Your task to perform on an android device: show emergency info Image 0: 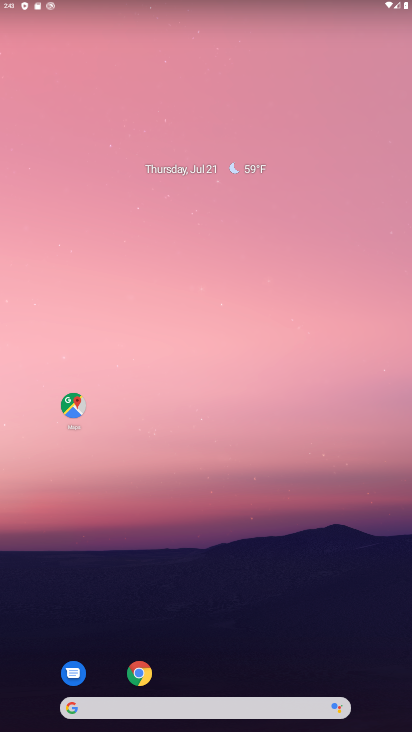
Step 0: drag from (383, 692) to (348, 165)
Your task to perform on an android device: show emergency info Image 1: 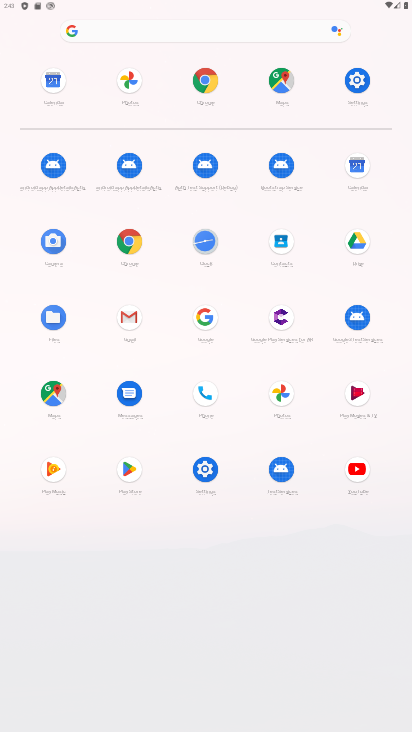
Step 1: click (204, 469)
Your task to perform on an android device: show emergency info Image 2: 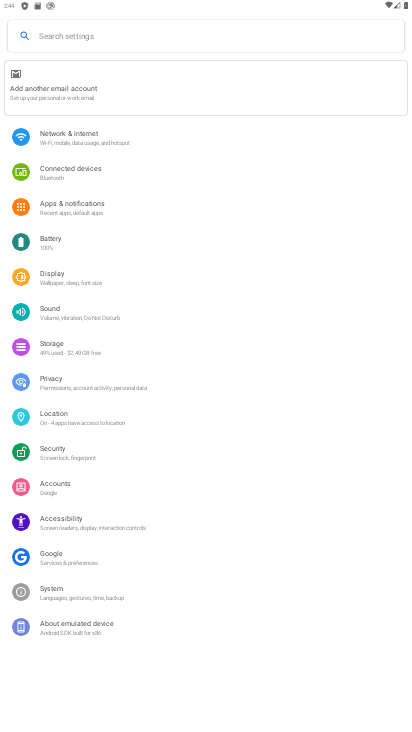
Step 2: click (55, 623)
Your task to perform on an android device: show emergency info Image 3: 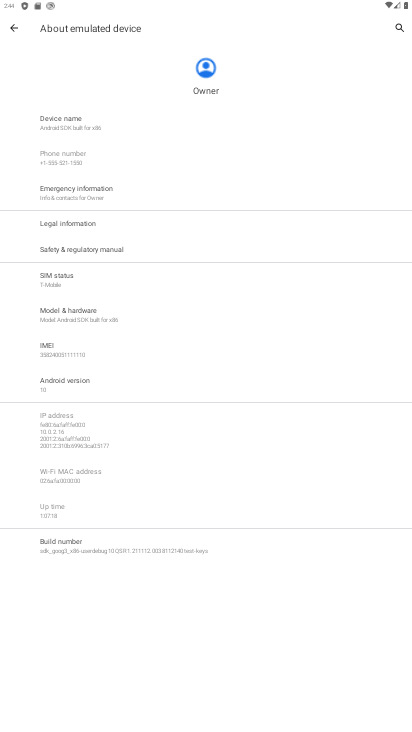
Step 3: click (61, 187)
Your task to perform on an android device: show emergency info Image 4: 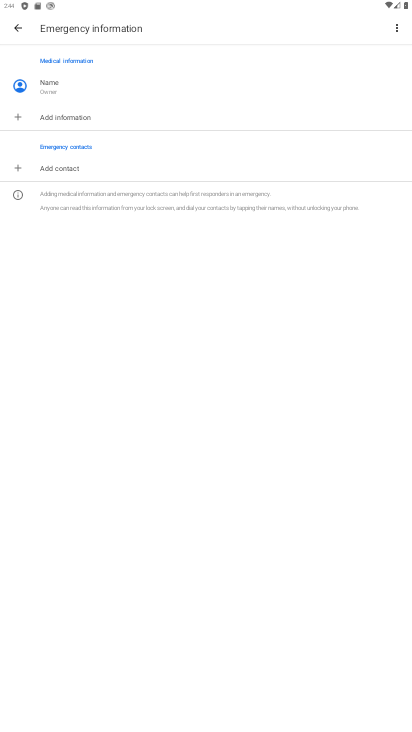
Step 4: task complete